Your task to perform on an android device: Open the calendar app, open the side menu, and click the "Day" option Image 0: 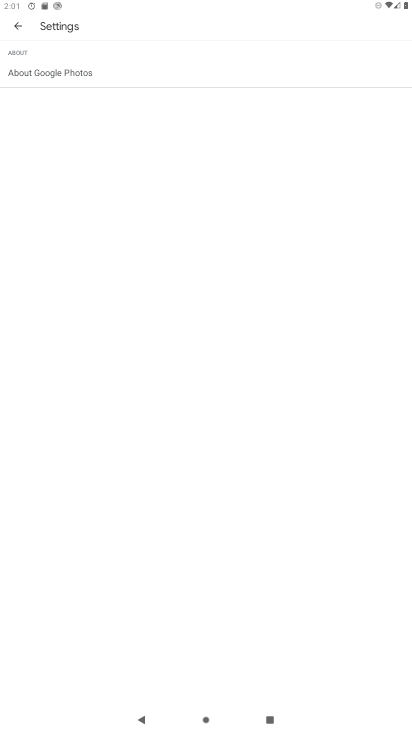
Step 0: press home button
Your task to perform on an android device: Open the calendar app, open the side menu, and click the "Day" option Image 1: 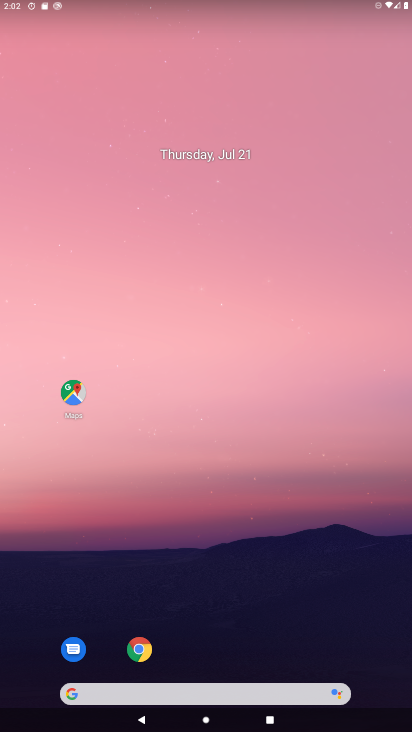
Step 1: drag from (316, 561) to (250, 13)
Your task to perform on an android device: Open the calendar app, open the side menu, and click the "Day" option Image 2: 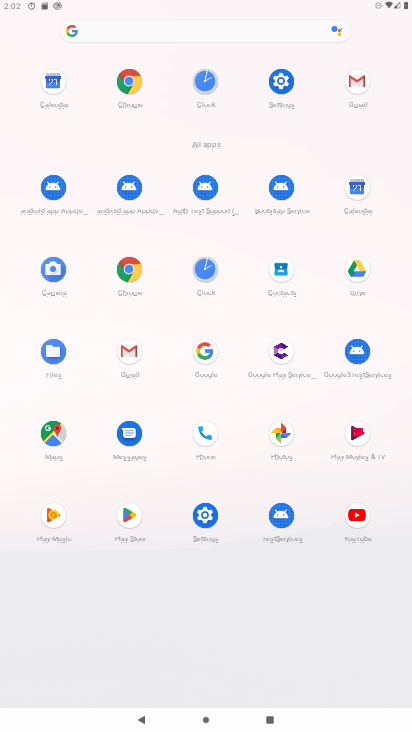
Step 2: click (358, 183)
Your task to perform on an android device: Open the calendar app, open the side menu, and click the "Day" option Image 3: 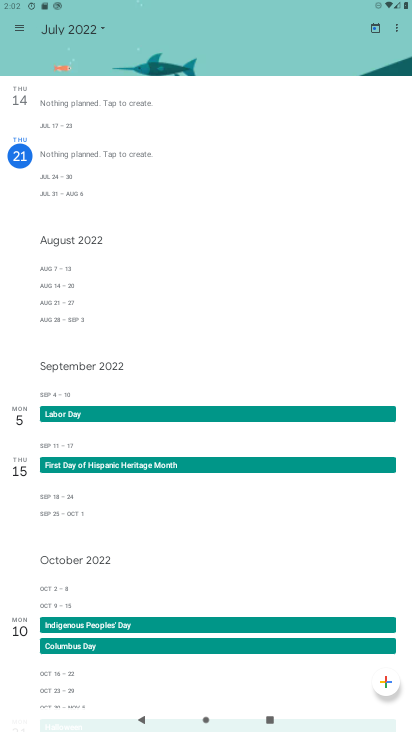
Step 3: click (10, 28)
Your task to perform on an android device: Open the calendar app, open the side menu, and click the "Day" option Image 4: 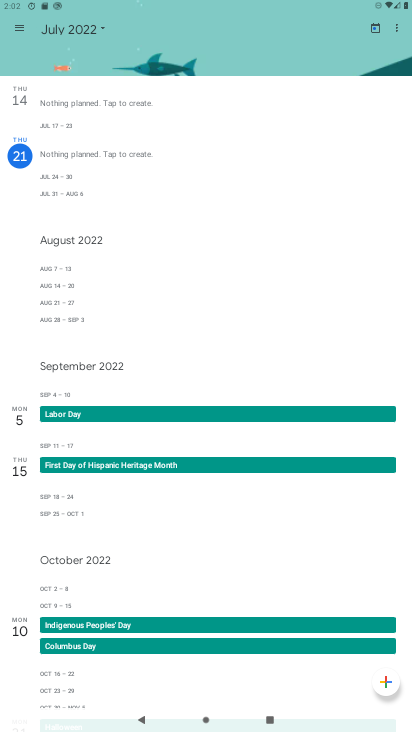
Step 4: click (19, 26)
Your task to perform on an android device: Open the calendar app, open the side menu, and click the "Day" option Image 5: 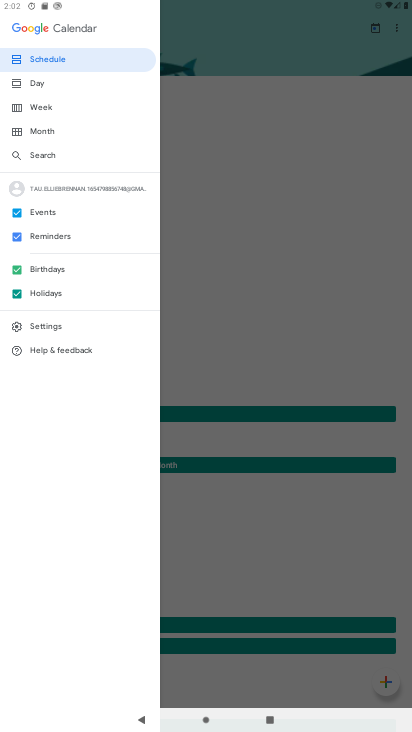
Step 5: click (53, 86)
Your task to perform on an android device: Open the calendar app, open the side menu, and click the "Day" option Image 6: 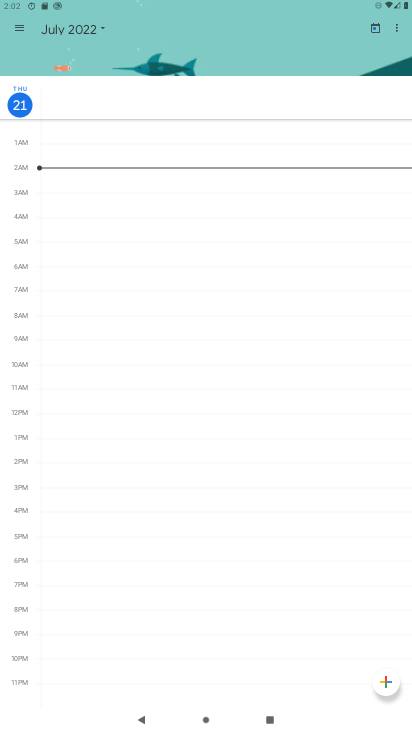
Step 6: task complete